Your task to perform on an android device: Search for sushi restaurants on Maps Image 0: 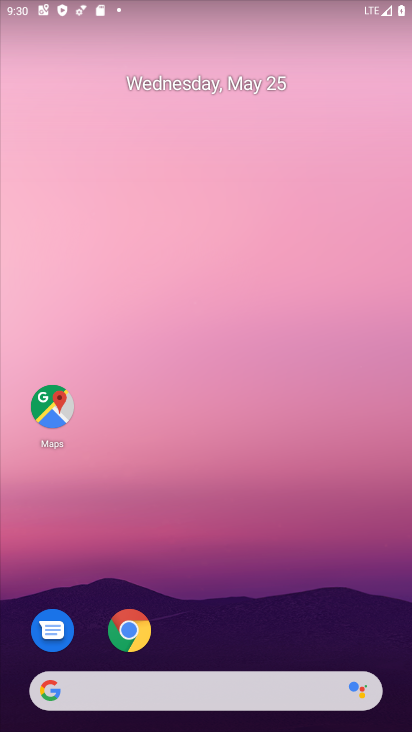
Step 0: click (56, 406)
Your task to perform on an android device: Search for sushi restaurants on Maps Image 1: 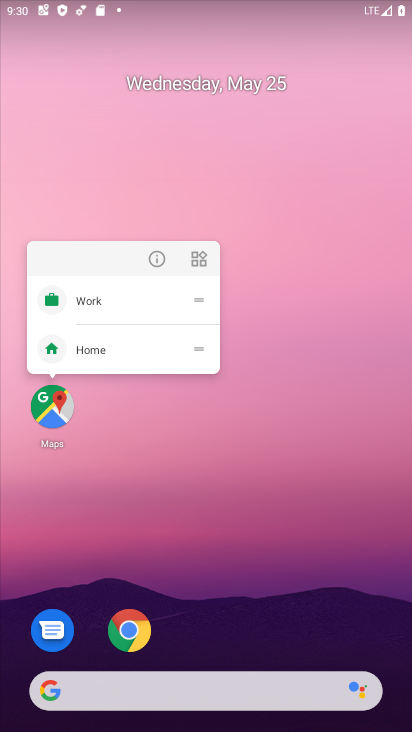
Step 1: click (56, 406)
Your task to perform on an android device: Search for sushi restaurants on Maps Image 2: 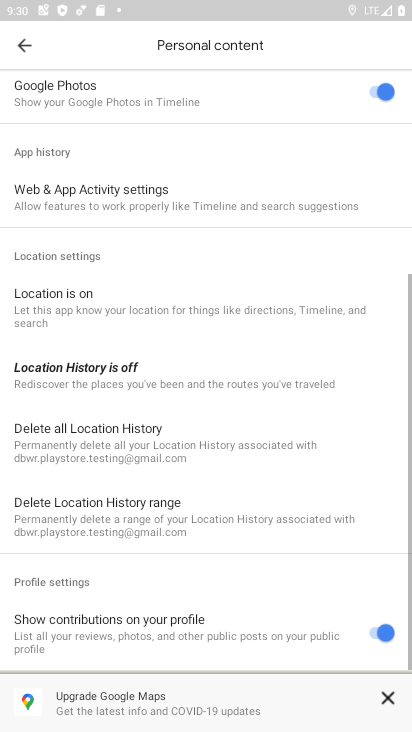
Step 2: click (27, 37)
Your task to perform on an android device: Search for sushi restaurants on Maps Image 3: 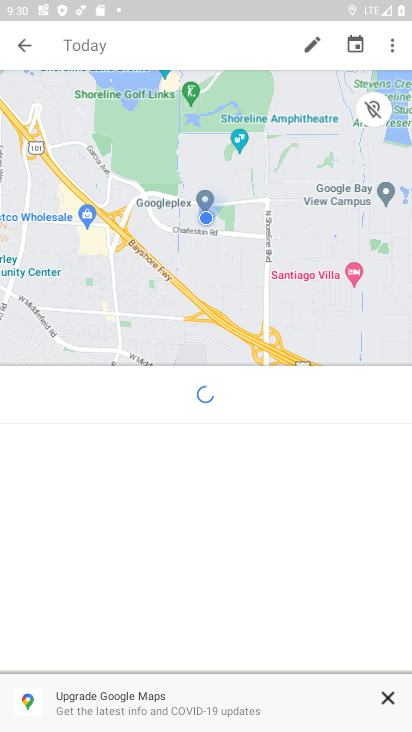
Step 3: click (27, 37)
Your task to perform on an android device: Search for sushi restaurants on Maps Image 4: 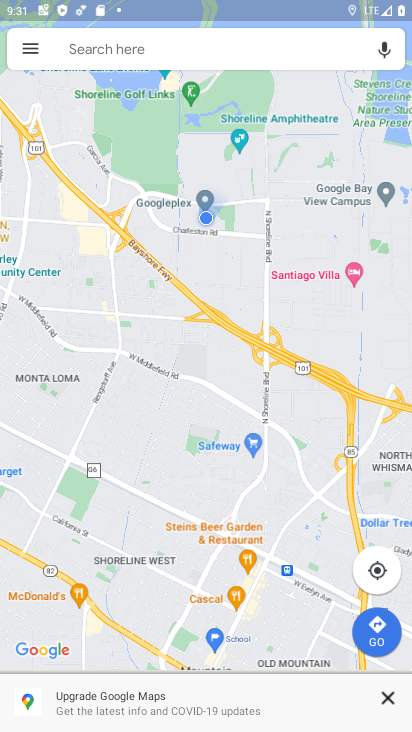
Step 4: click (164, 46)
Your task to perform on an android device: Search for sushi restaurants on Maps Image 5: 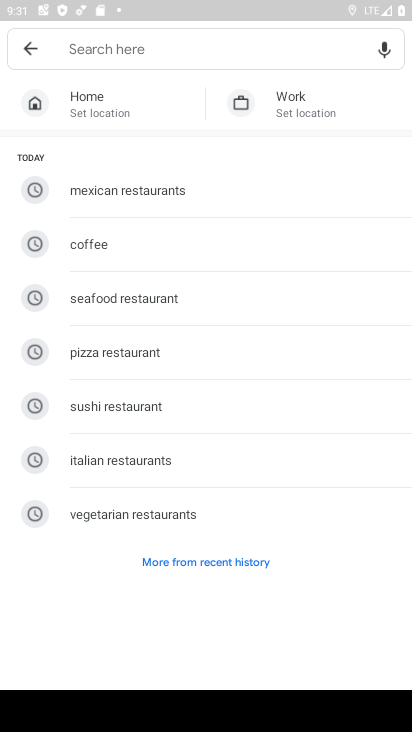
Step 5: click (153, 410)
Your task to perform on an android device: Search for sushi restaurants on Maps Image 6: 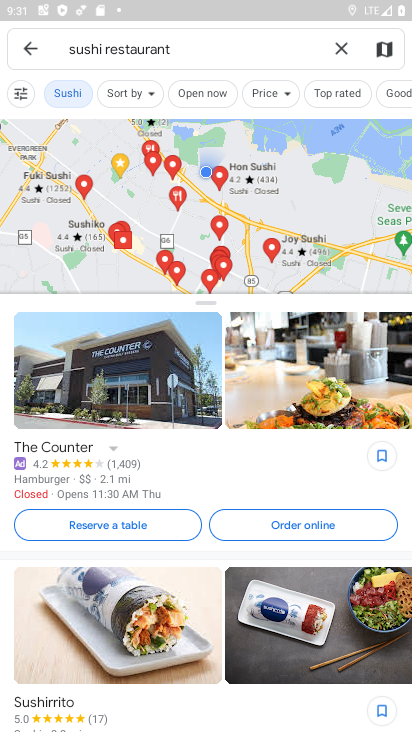
Step 6: task complete